Your task to perform on an android device: What's on my calendar tomorrow? Image 0: 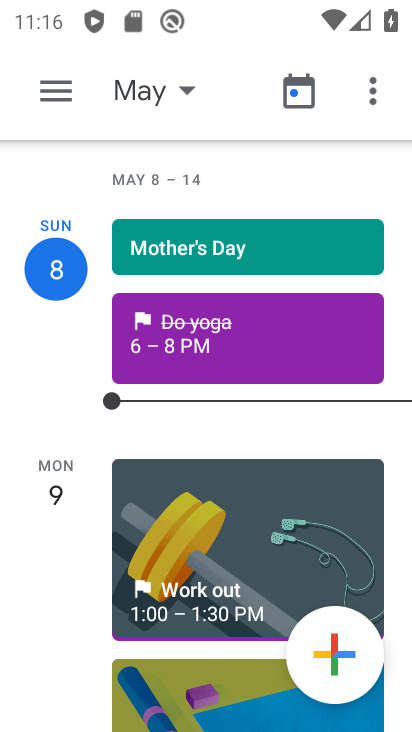
Step 0: press home button
Your task to perform on an android device: What's on my calendar tomorrow? Image 1: 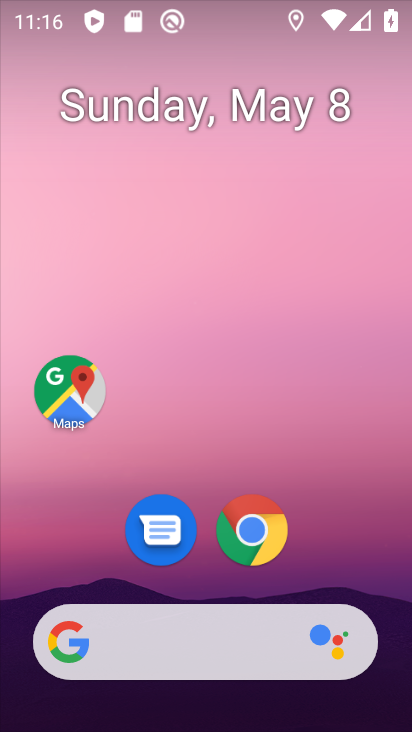
Step 1: drag from (308, 518) to (278, 5)
Your task to perform on an android device: What's on my calendar tomorrow? Image 2: 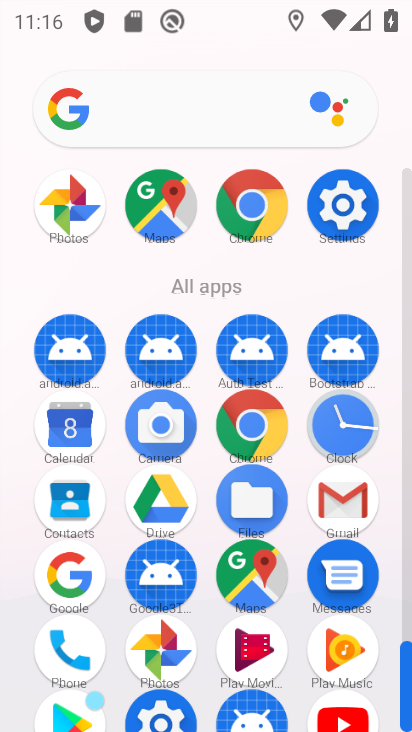
Step 2: click (64, 422)
Your task to perform on an android device: What's on my calendar tomorrow? Image 3: 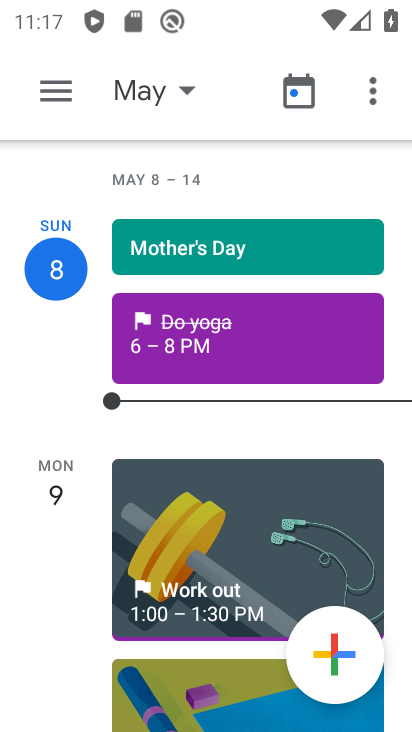
Step 3: click (177, 89)
Your task to perform on an android device: What's on my calendar tomorrow? Image 4: 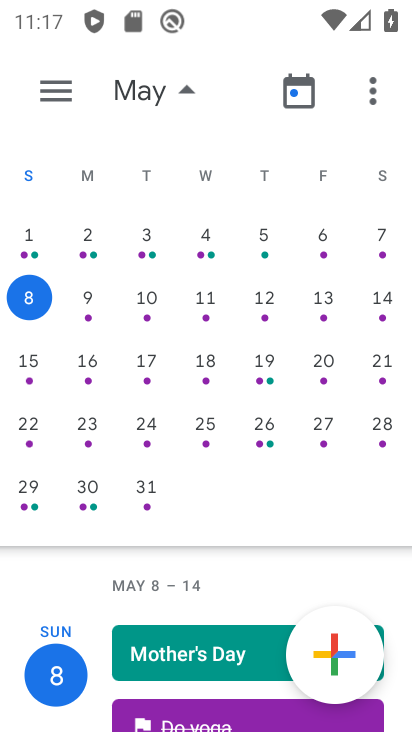
Step 4: click (152, 297)
Your task to perform on an android device: What's on my calendar tomorrow? Image 5: 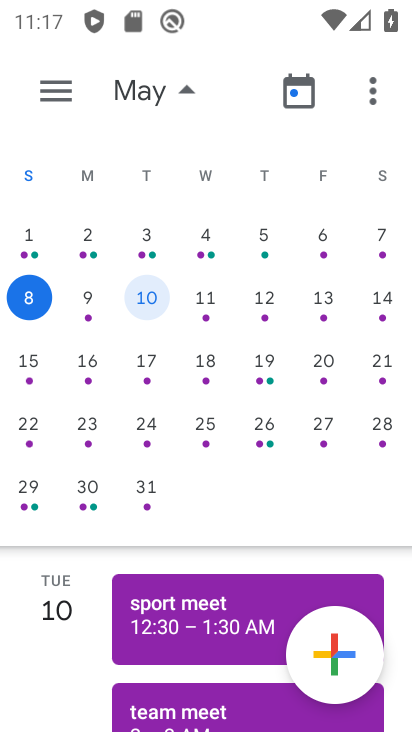
Step 5: task complete